Your task to perform on an android device: find snoozed emails in the gmail app Image 0: 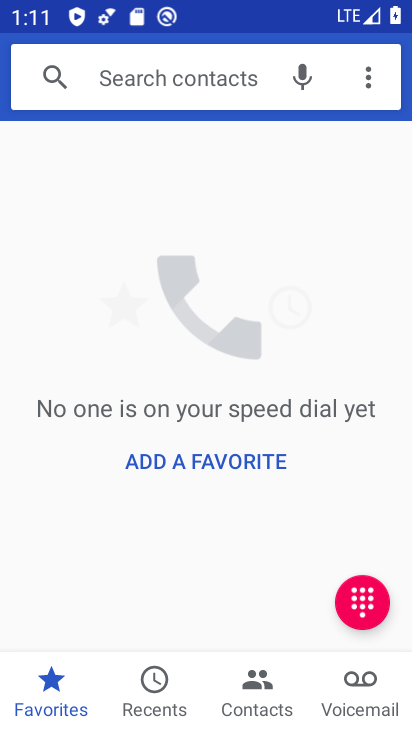
Step 0: drag from (377, 608) to (387, 524)
Your task to perform on an android device: find snoozed emails in the gmail app Image 1: 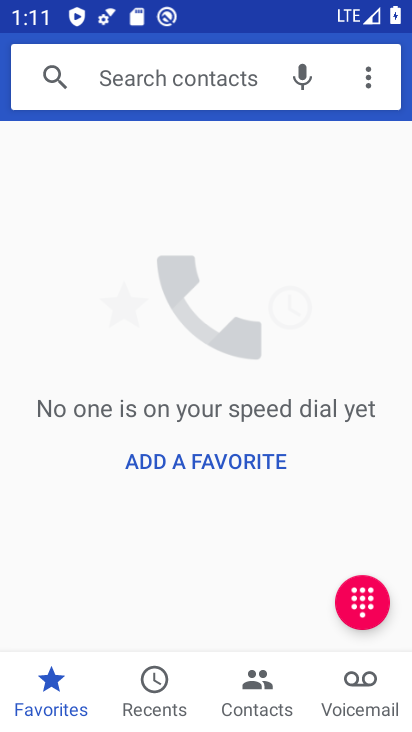
Step 1: press home button
Your task to perform on an android device: find snoozed emails in the gmail app Image 2: 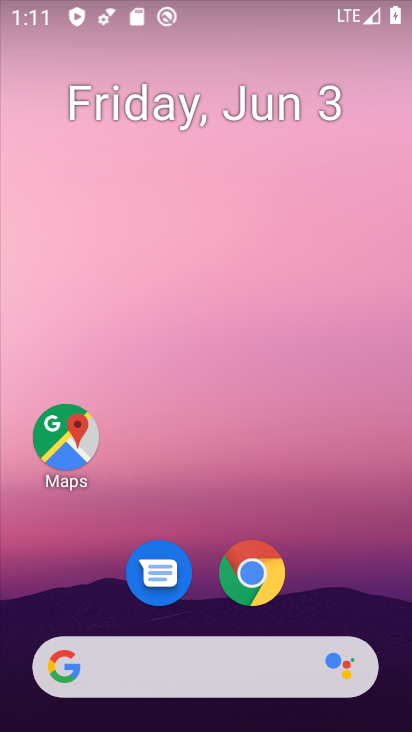
Step 2: drag from (368, 590) to (392, 353)
Your task to perform on an android device: find snoozed emails in the gmail app Image 3: 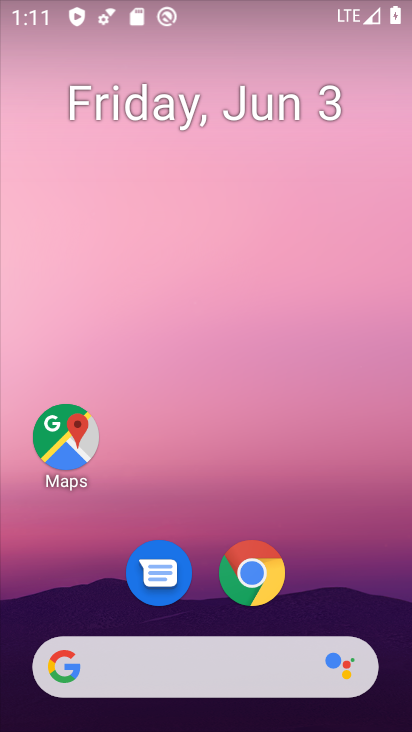
Step 3: drag from (367, 600) to (366, 379)
Your task to perform on an android device: find snoozed emails in the gmail app Image 4: 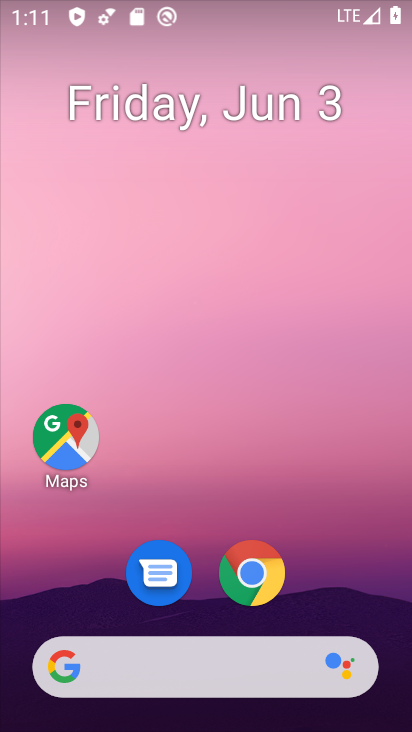
Step 4: drag from (334, 589) to (364, 67)
Your task to perform on an android device: find snoozed emails in the gmail app Image 5: 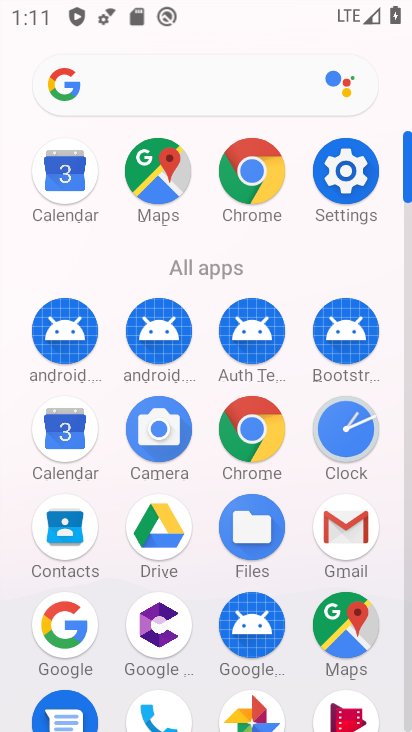
Step 5: click (363, 525)
Your task to perform on an android device: find snoozed emails in the gmail app Image 6: 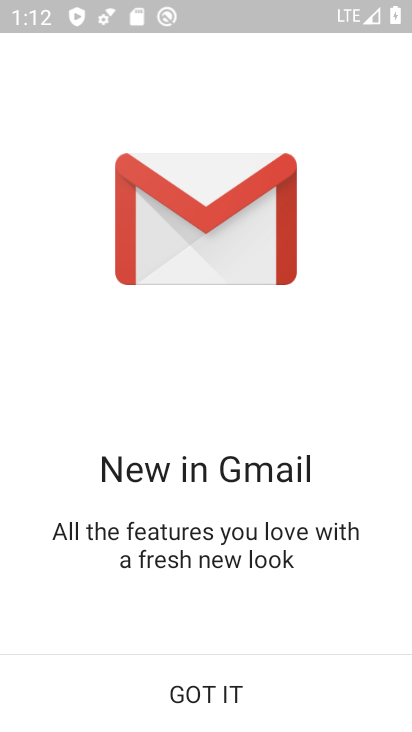
Step 6: click (327, 690)
Your task to perform on an android device: find snoozed emails in the gmail app Image 7: 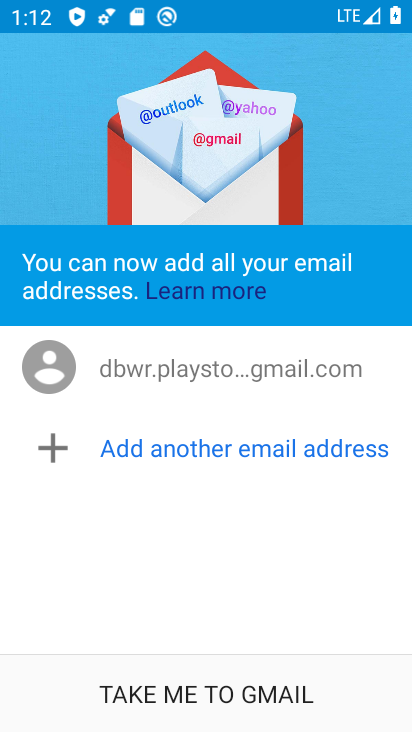
Step 7: click (295, 691)
Your task to perform on an android device: find snoozed emails in the gmail app Image 8: 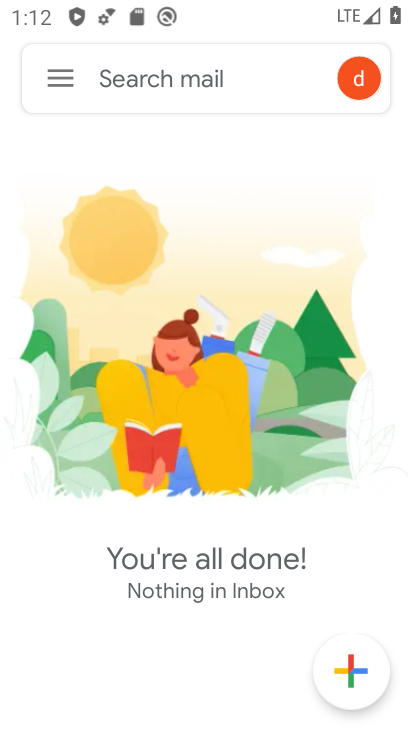
Step 8: click (68, 81)
Your task to perform on an android device: find snoozed emails in the gmail app Image 9: 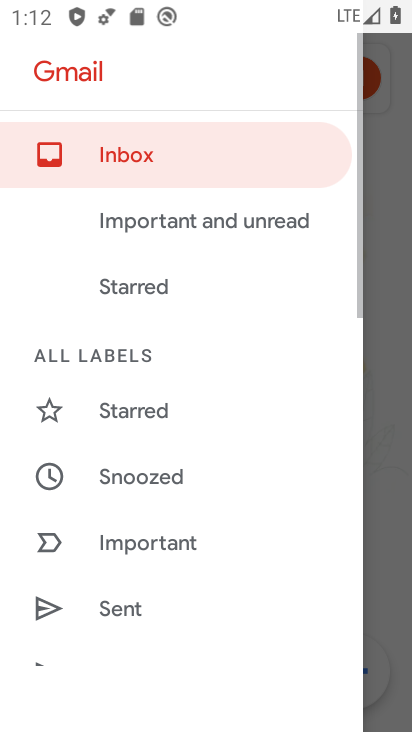
Step 9: drag from (247, 513) to (253, 421)
Your task to perform on an android device: find snoozed emails in the gmail app Image 10: 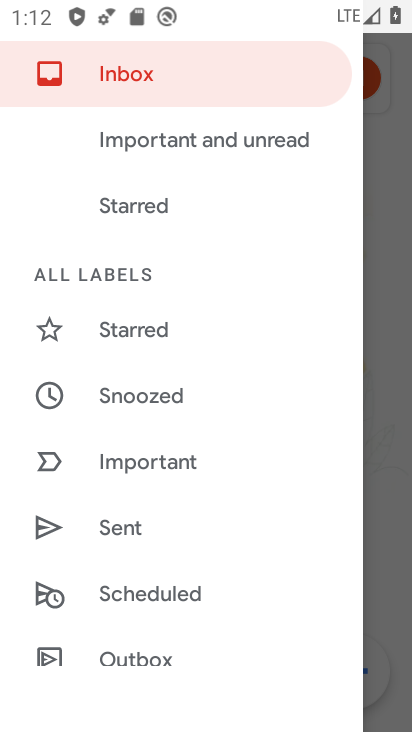
Step 10: drag from (256, 521) to (252, 448)
Your task to perform on an android device: find snoozed emails in the gmail app Image 11: 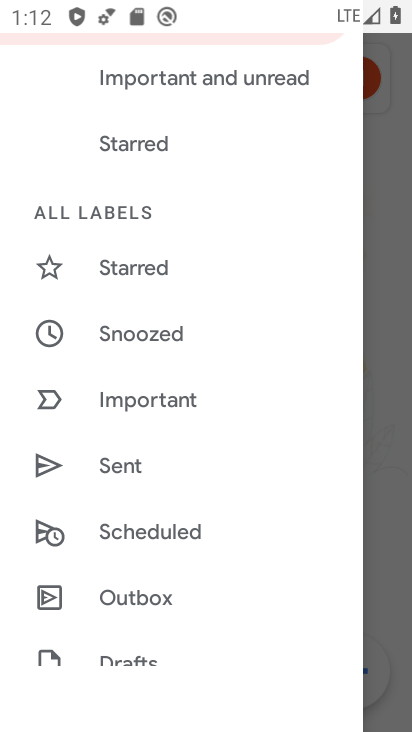
Step 11: drag from (257, 571) to (255, 491)
Your task to perform on an android device: find snoozed emails in the gmail app Image 12: 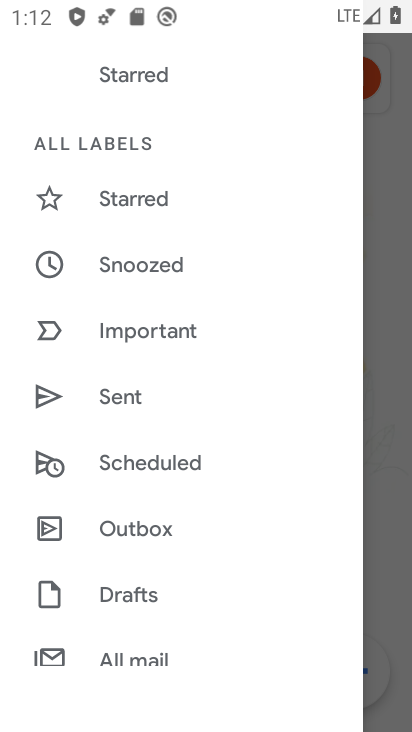
Step 12: drag from (248, 257) to (246, 407)
Your task to perform on an android device: find snoozed emails in the gmail app Image 13: 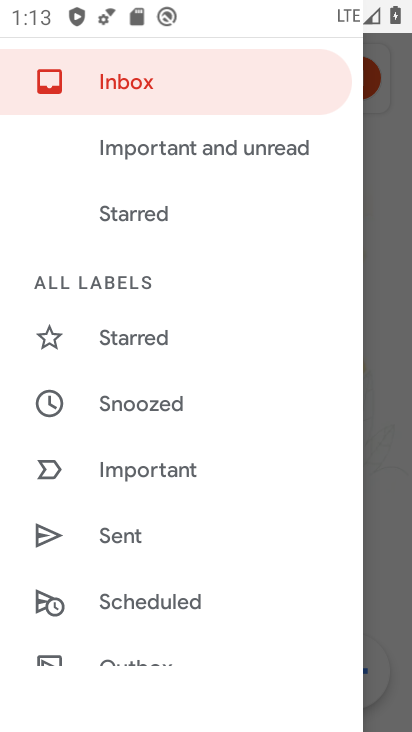
Step 13: click (187, 396)
Your task to perform on an android device: find snoozed emails in the gmail app Image 14: 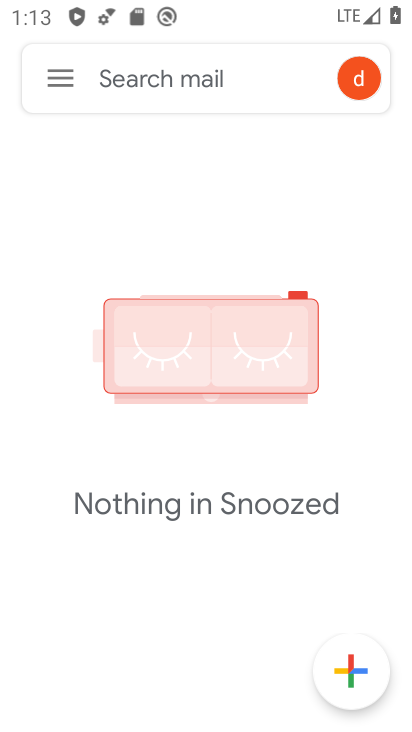
Step 14: task complete